Your task to perform on an android device: Open the map Image 0: 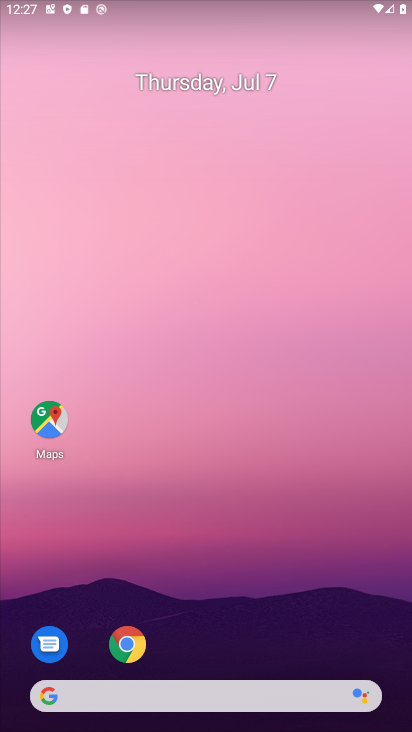
Step 0: drag from (212, 640) to (237, 35)
Your task to perform on an android device: Open the map Image 1: 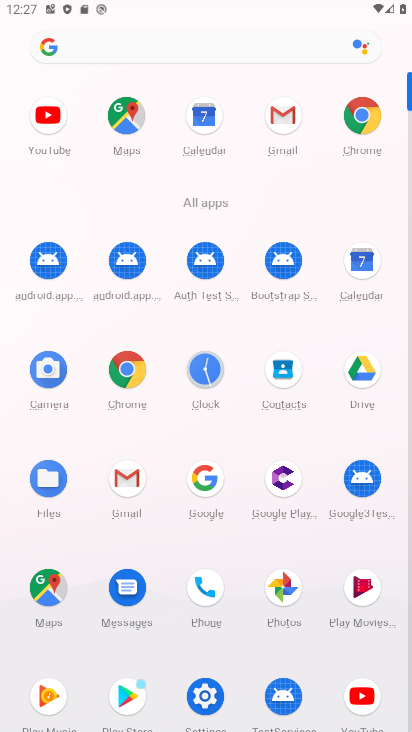
Step 1: click (124, 112)
Your task to perform on an android device: Open the map Image 2: 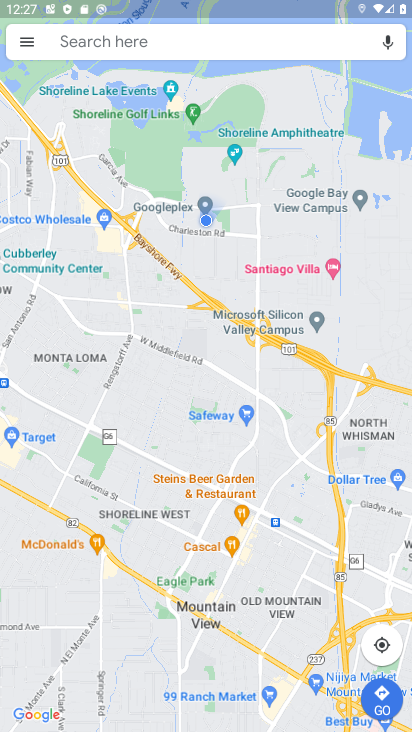
Step 2: task complete